Your task to perform on an android device: Open calendar and show me the fourth week of next month Image 0: 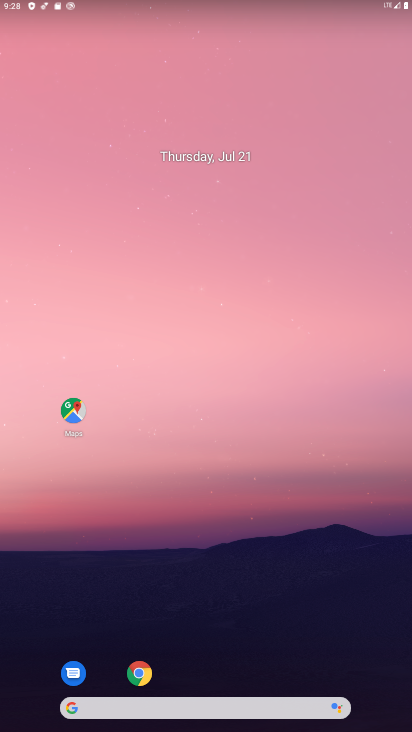
Step 0: click (172, 54)
Your task to perform on an android device: Open calendar and show me the fourth week of next month Image 1: 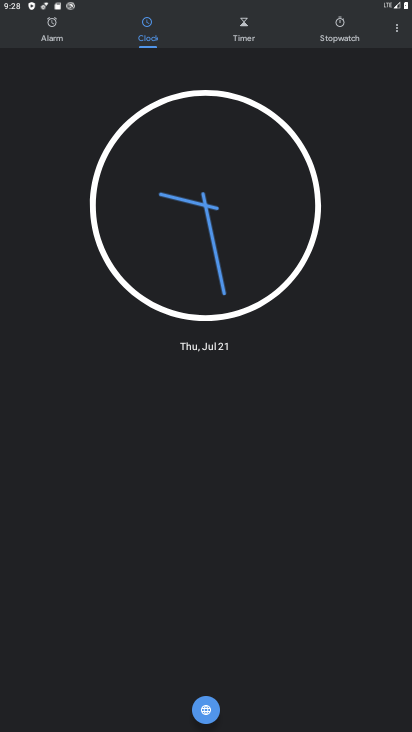
Step 1: press home button
Your task to perform on an android device: Open calendar and show me the fourth week of next month Image 2: 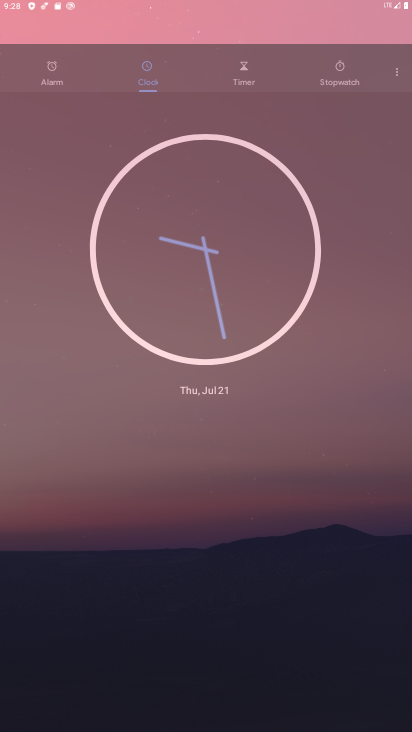
Step 2: drag from (202, 443) to (284, 18)
Your task to perform on an android device: Open calendar and show me the fourth week of next month Image 3: 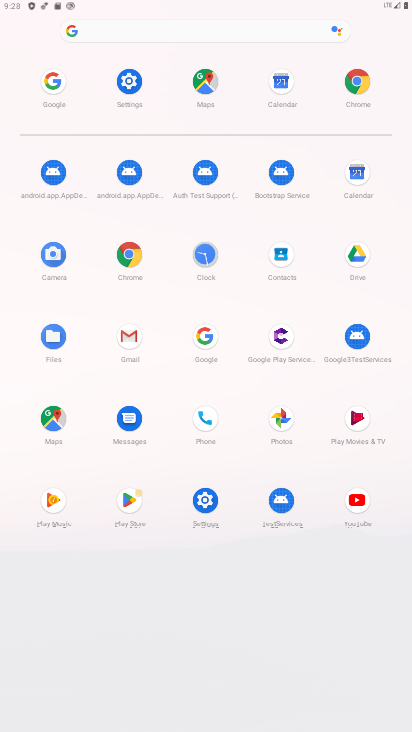
Step 3: click (360, 175)
Your task to perform on an android device: Open calendar and show me the fourth week of next month Image 4: 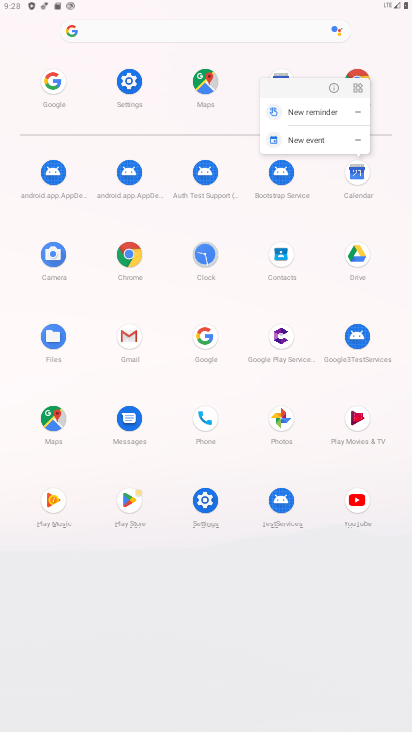
Step 4: click (329, 92)
Your task to perform on an android device: Open calendar and show me the fourth week of next month Image 5: 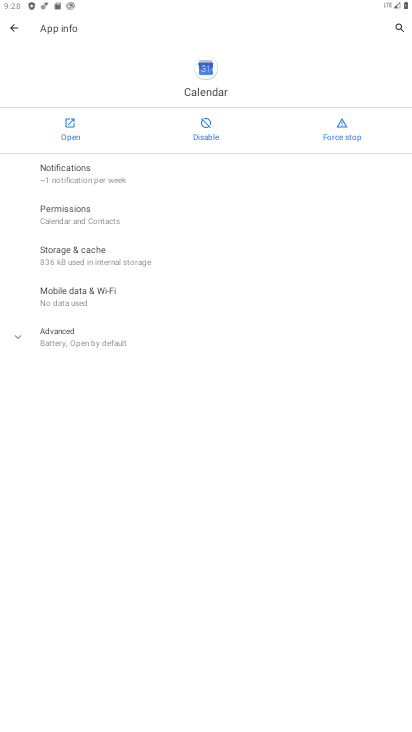
Step 5: click (61, 134)
Your task to perform on an android device: Open calendar and show me the fourth week of next month Image 6: 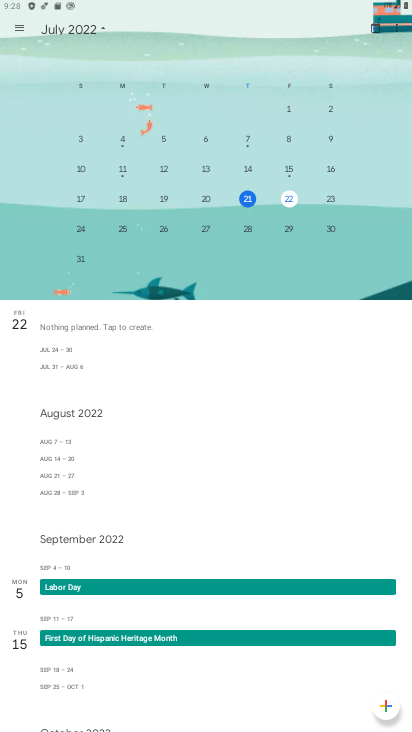
Step 6: drag from (319, 195) to (0, 187)
Your task to perform on an android device: Open calendar and show me the fourth week of next month Image 7: 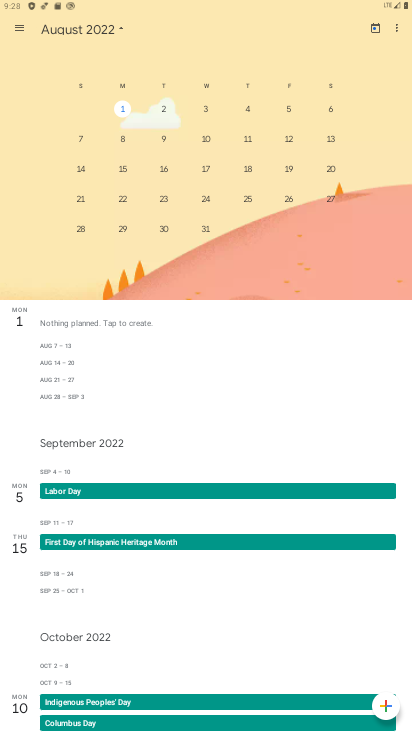
Step 7: click (287, 197)
Your task to perform on an android device: Open calendar and show me the fourth week of next month Image 8: 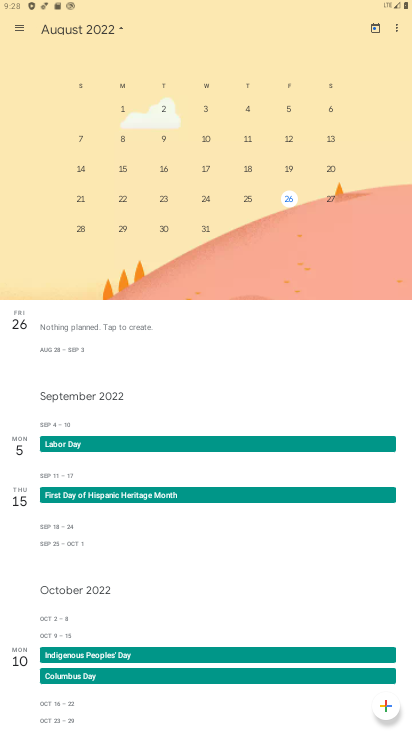
Step 8: task complete